Your task to perform on an android device: Open Chrome and go to settings Image 0: 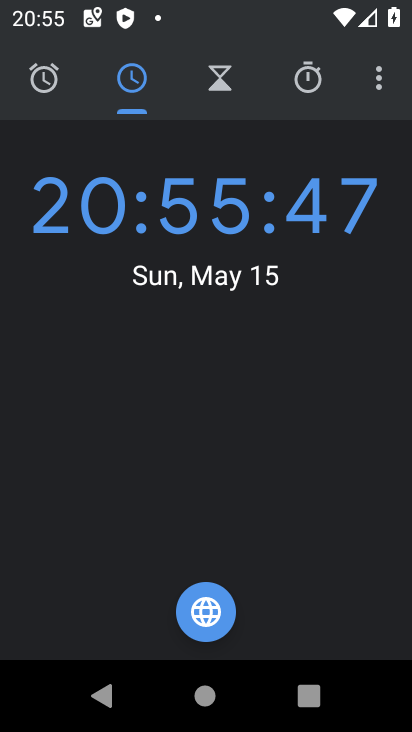
Step 0: press home button
Your task to perform on an android device: Open Chrome and go to settings Image 1: 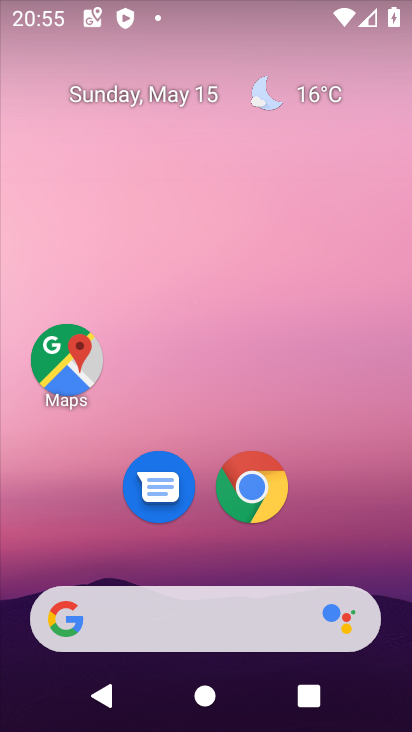
Step 1: click (260, 485)
Your task to perform on an android device: Open Chrome and go to settings Image 2: 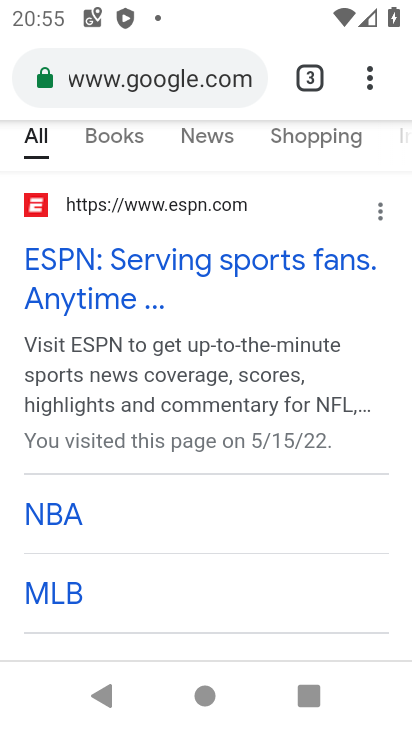
Step 2: click (366, 77)
Your task to perform on an android device: Open Chrome and go to settings Image 3: 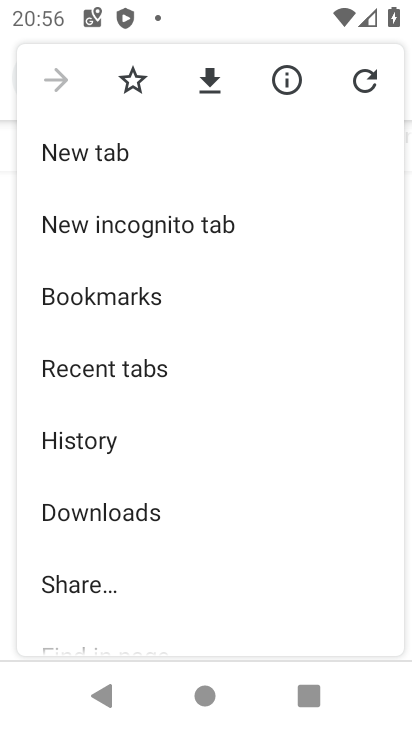
Step 3: click (199, 392)
Your task to perform on an android device: Open Chrome and go to settings Image 4: 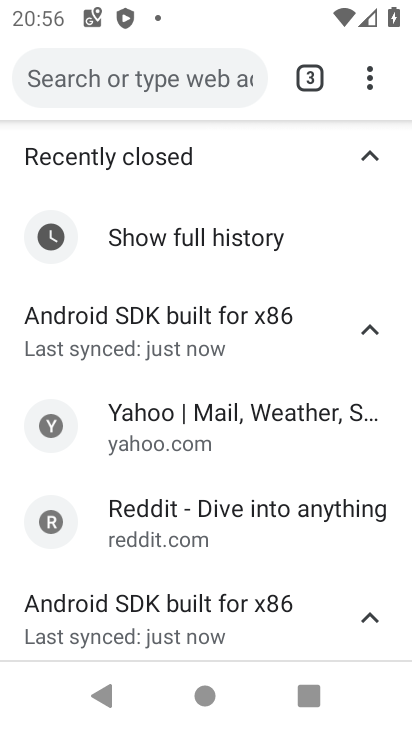
Step 4: click (362, 72)
Your task to perform on an android device: Open Chrome and go to settings Image 5: 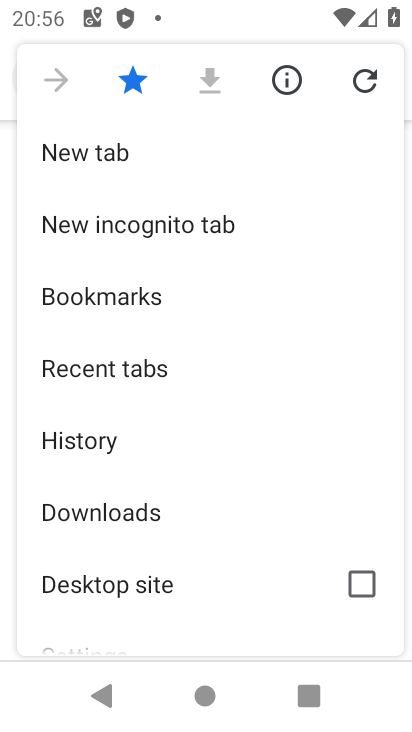
Step 5: click (269, 390)
Your task to perform on an android device: Open Chrome and go to settings Image 6: 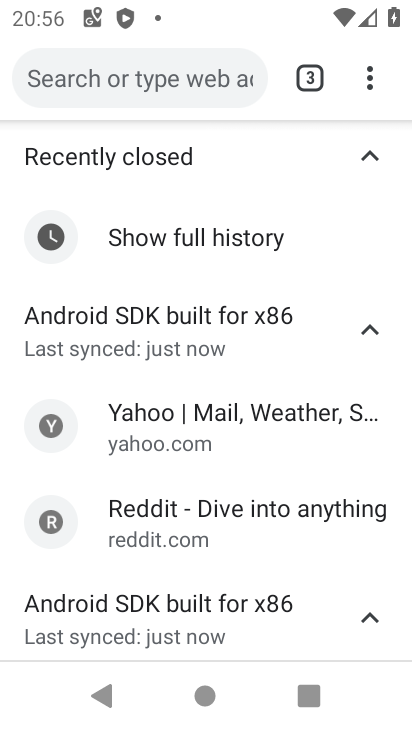
Step 6: click (364, 71)
Your task to perform on an android device: Open Chrome and go to settings Image 7: 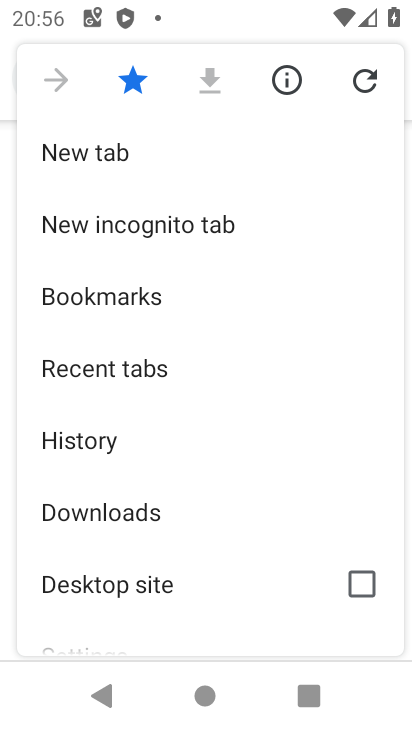
Step 7: drag from (255, 573) to (248, 311)
Your task to perform on an android device: Open Chrome and go to settings Image 8: 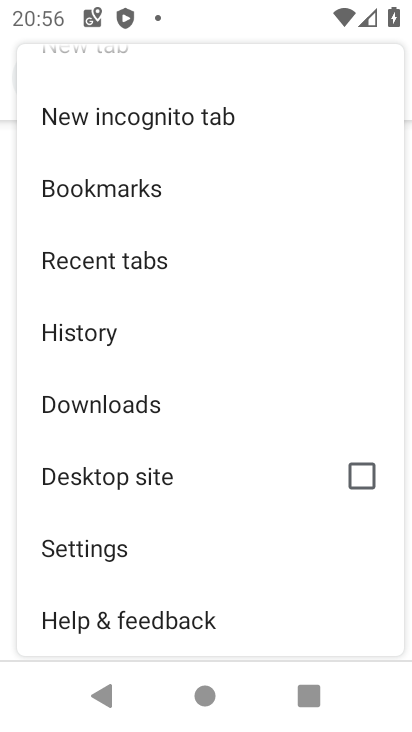
Step 8: click (84, 544)
Your task to perform on an android device: Open Chrome and go to settings Image 9: 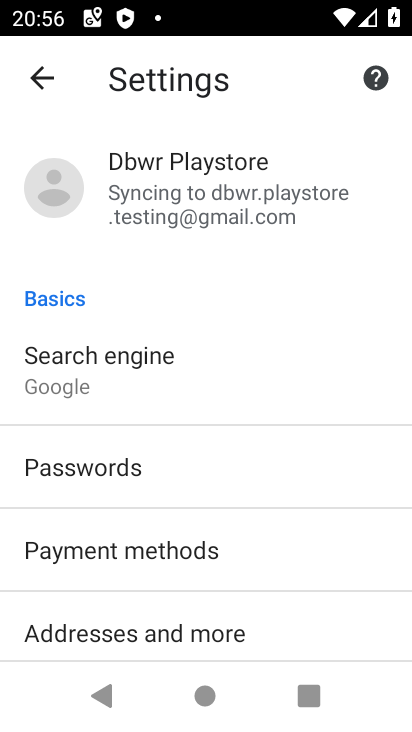
Step 9: task complete